Your task to perform on an android device: What's the news this week? Image 0: 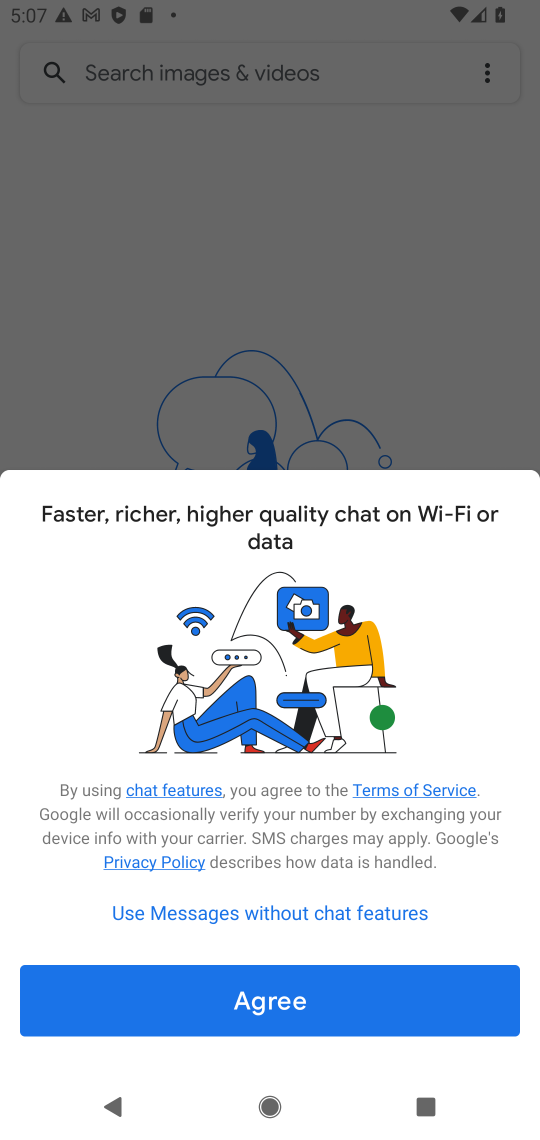
Step 0: press home button
Your task to perform on an android device: What's the news this week? Image 1: 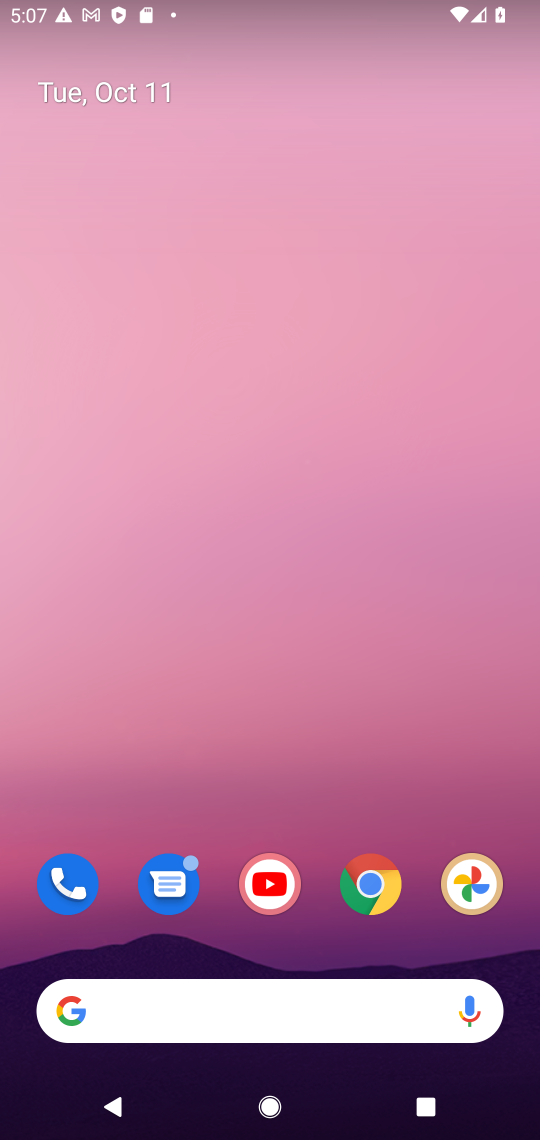
Step 1: click (371, 882)
Your task to perform on an android device: What's the news this week? Image 2: 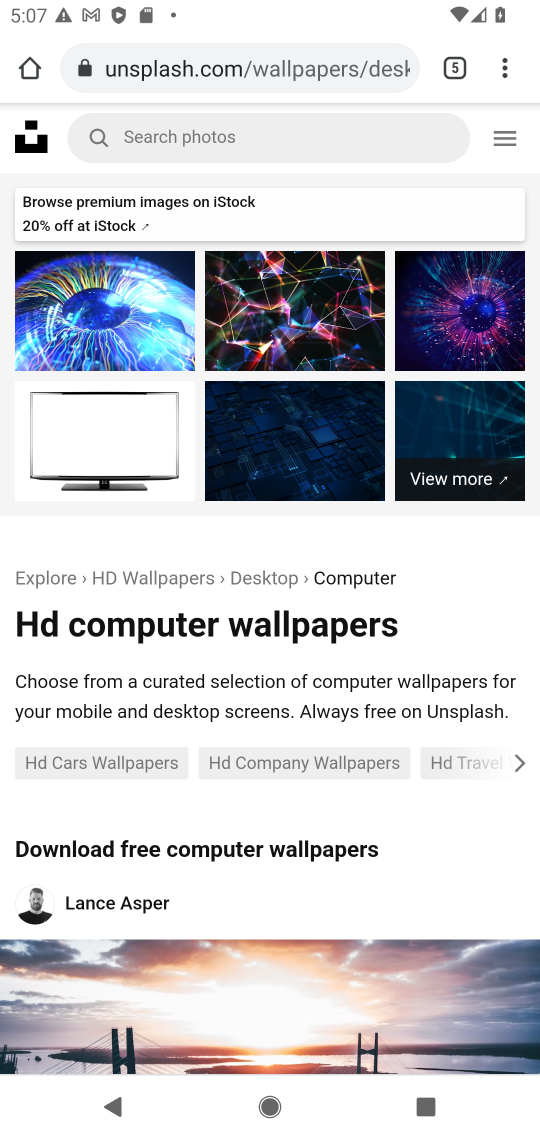
Step 2: click (505, 78)
Your task to perform on an android device: What's the news this week? Image 3: 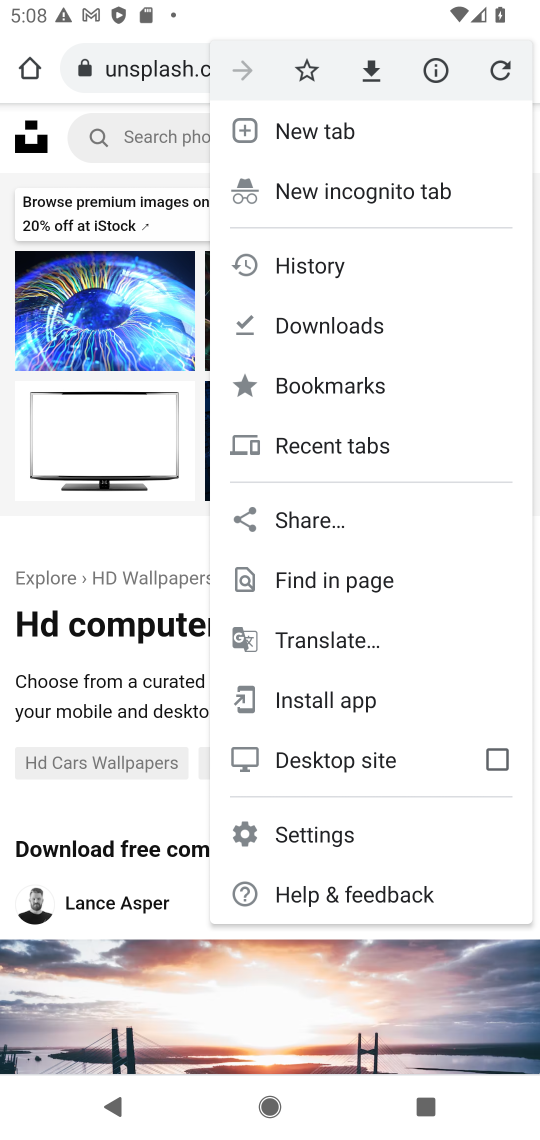
Step 3: click (320, 131)
Your task to perform on an android device: What's the news this week? Image 4: 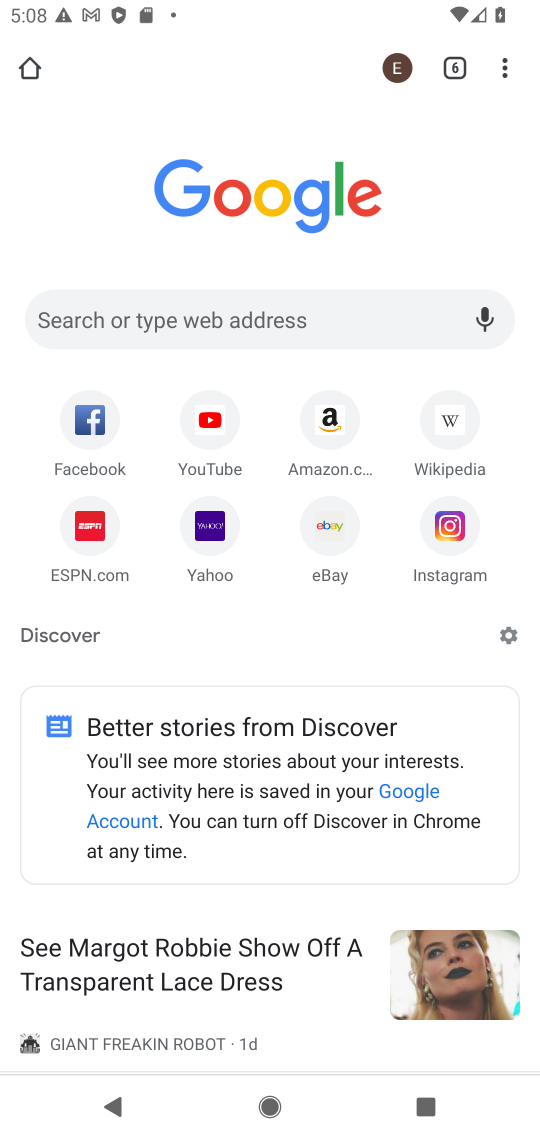
Step 4: click (343, 319)
Your task to perform on an android device: What's the news this week? Image 5: 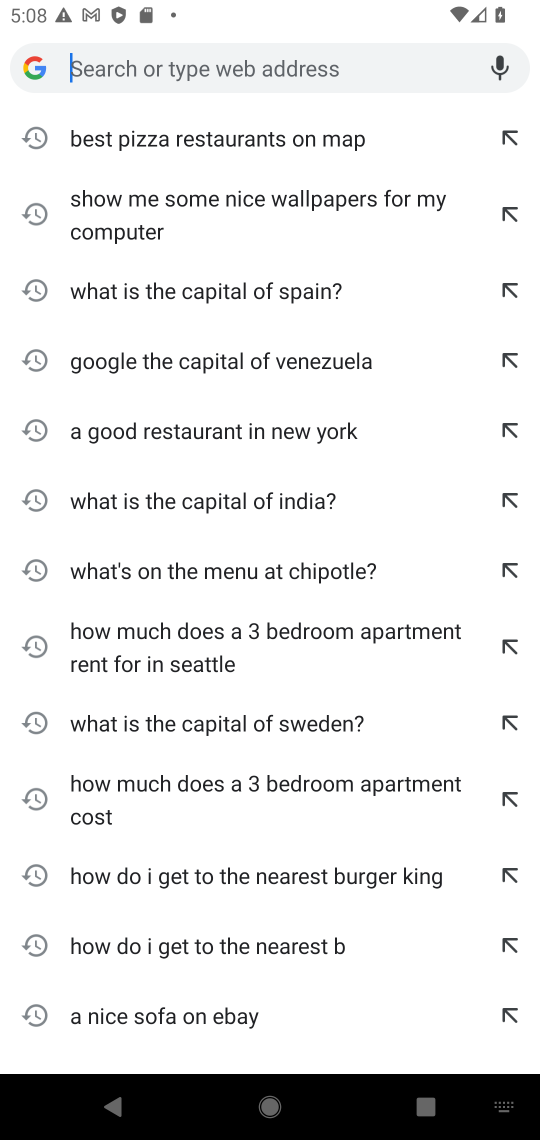
Step 5: type "What's the news this week?"
Your task to perform on an android device: What's the news this week? Image 6: 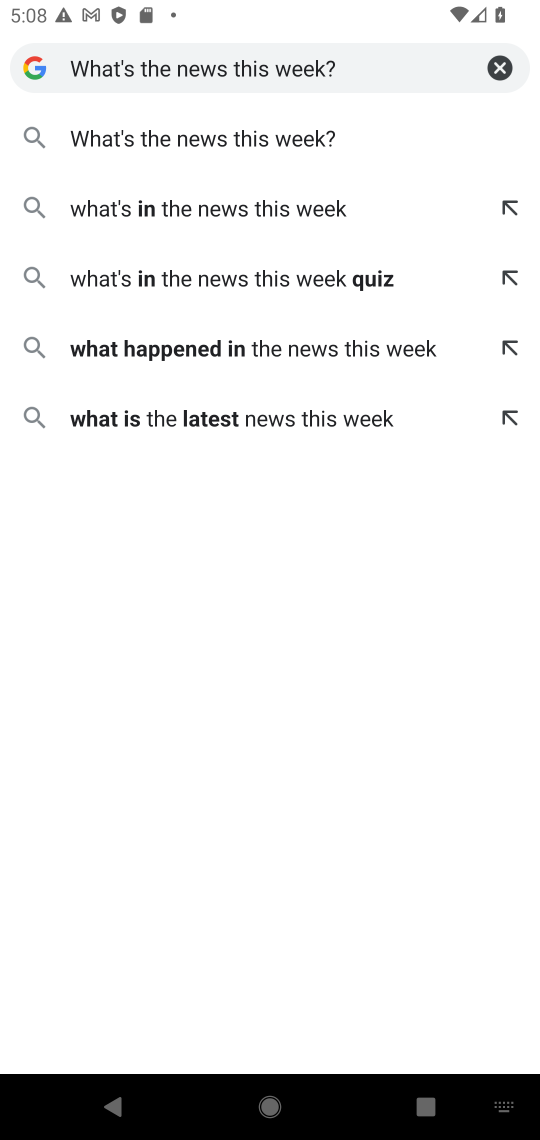
Step 6: click (119, 138)
Your task to perform on an android device: What's the news this week? Image 7: 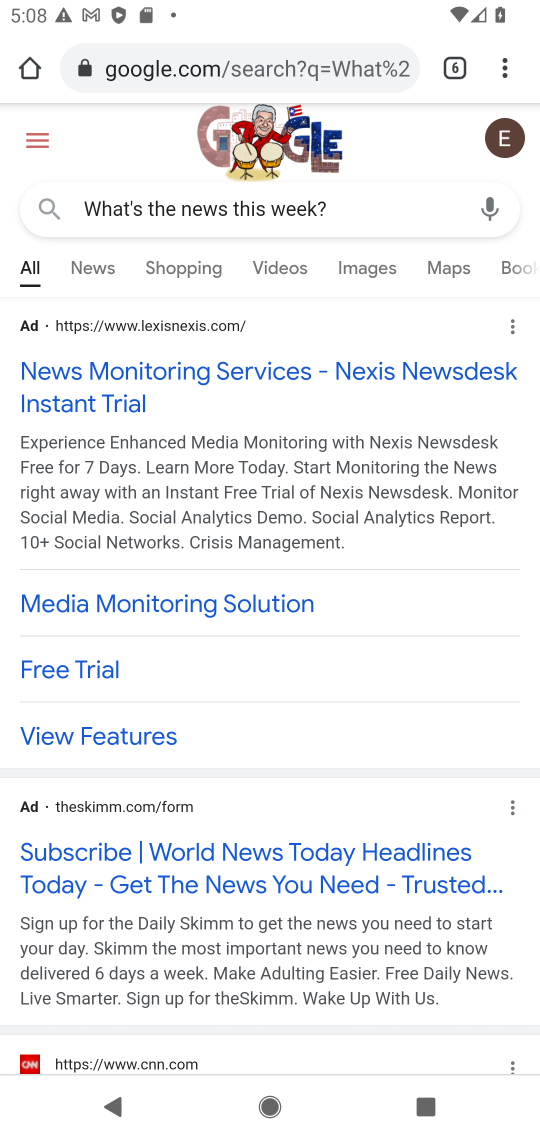
Step 7: click (89, 269)
Your task to perform on an android device: What's the news this week? Image 8: 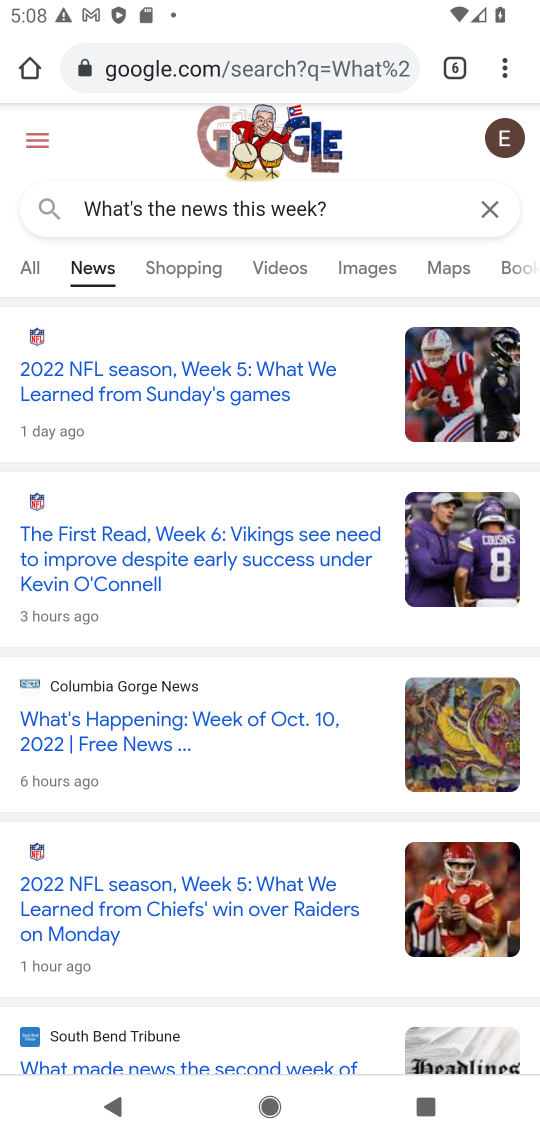
Step 8: task complete